Your task to perform on an android device: Toggle the flashlight Image 0: 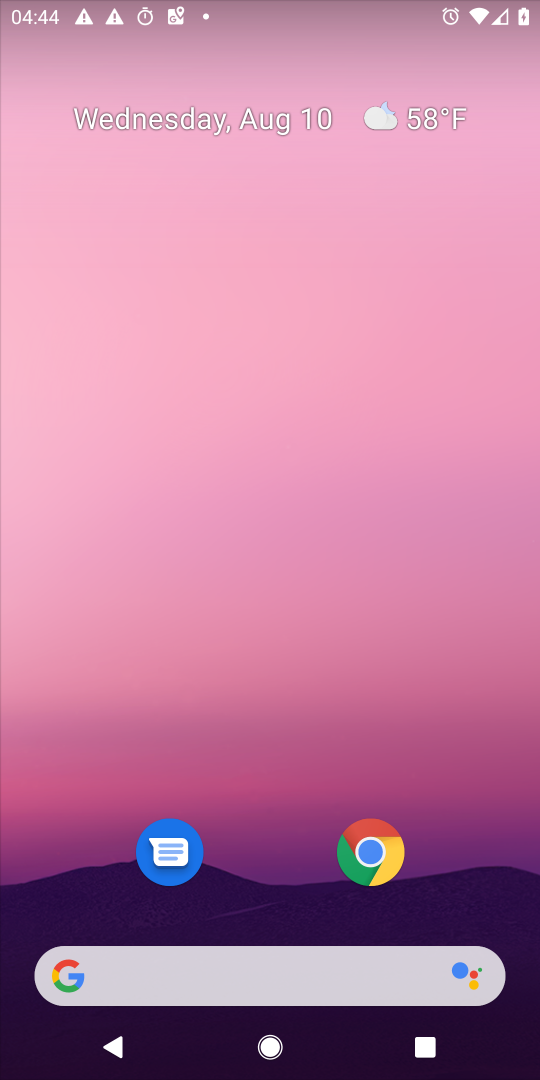
Step 0: drag from (267, 865) to (178, 87)
Your task to perform on an android device: Toggle the flashlight Image 1: 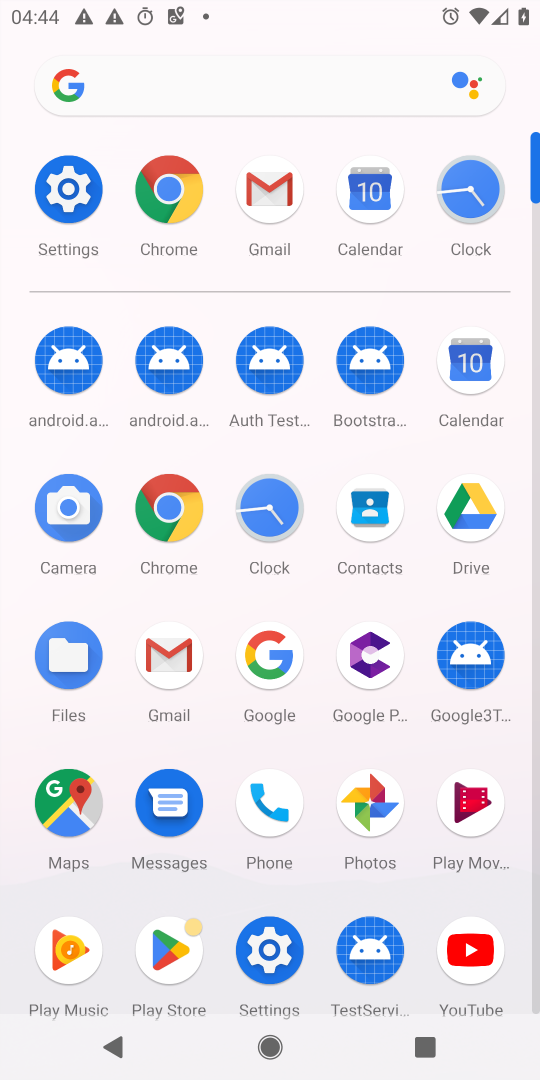
Step 1: click (271, 947)
Your task to perform on an android device: Toggle the flashlight Image 2: 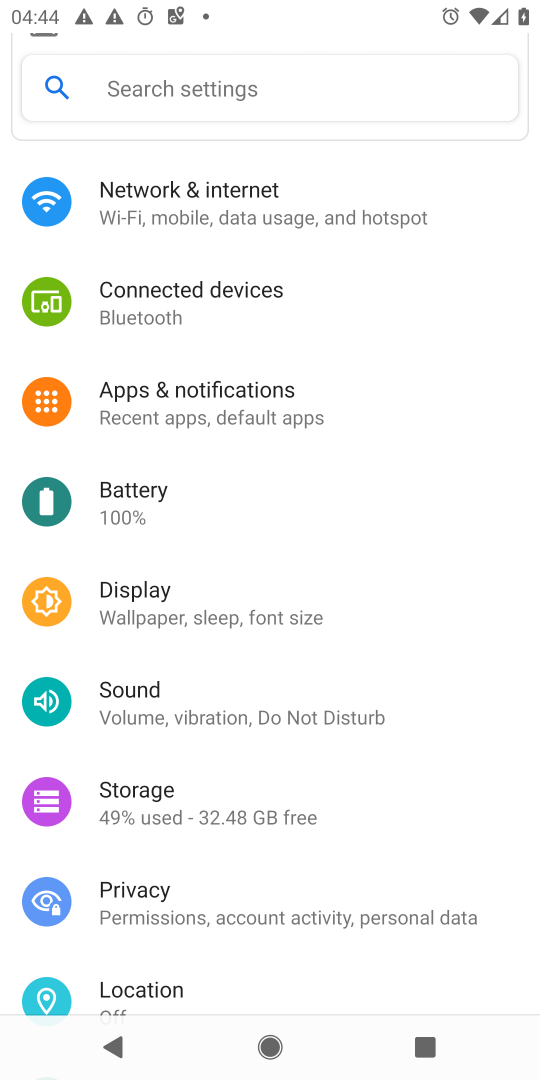
Step 2: click (148, 604)
Your task to perform on an android device: Toggle the flashlight Image 3: 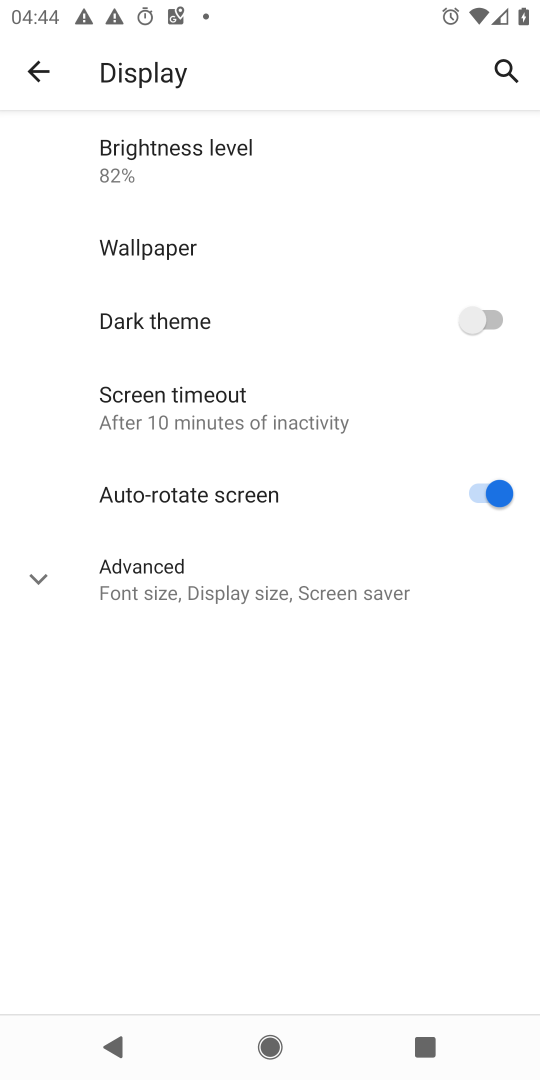
Step 3: click (167, 413)
Your task to perform on an android device: Toggle the flashlight Image 4: 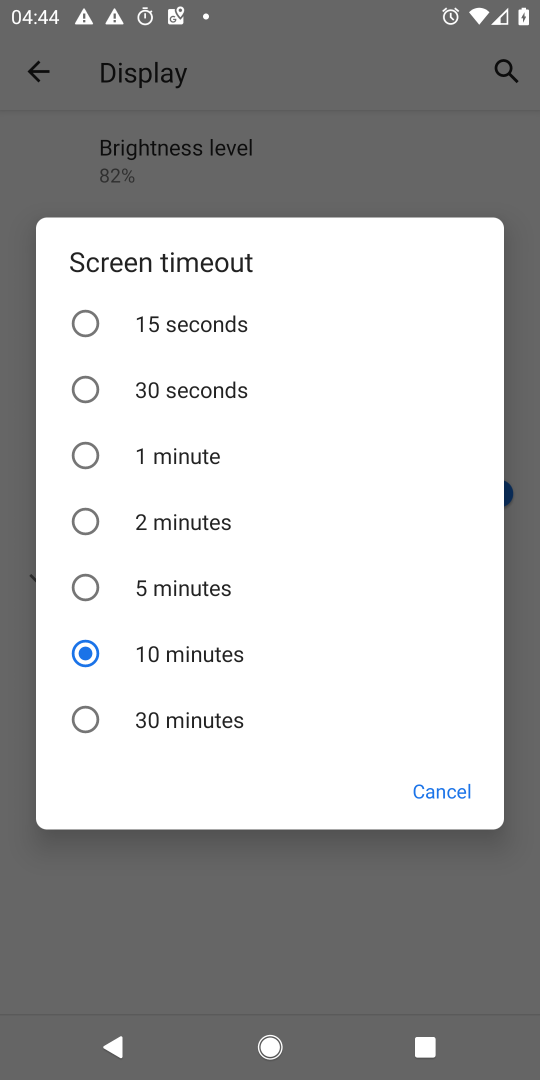
Step 4: task complete